Your task to perform on an android device: open app "Cash App" Image 0: 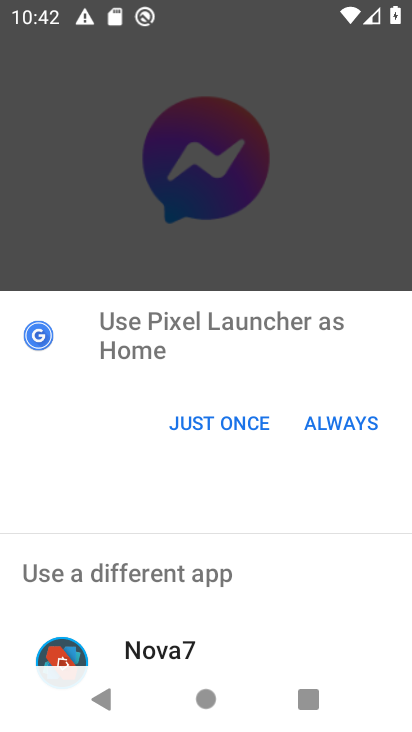
Step 0: press home button
Your task to perform on an android device: open app "Cash App" Image 1: 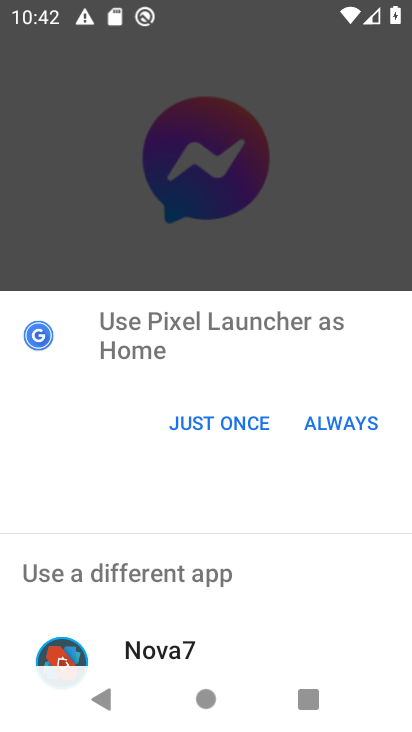
Step 1: click (207, 420)
Your task to perform on an android device: open app "Cash App" Image 2: 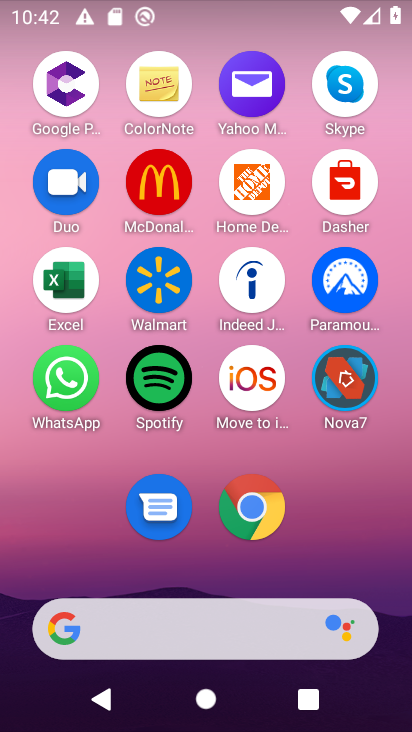
Step 2: drag from (404, 635) to (382, 248)
Your task to perform on an android device: open app "Cash App" Image 3: 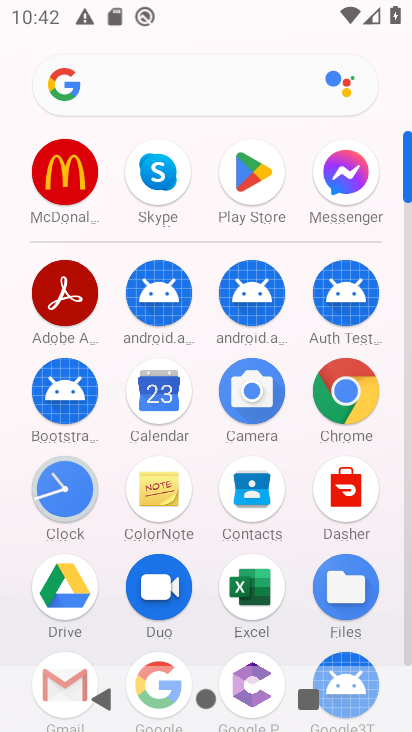
Step 3: click (409, 648)
Your task to perform on an android device: open app "Cash App" Image 4: 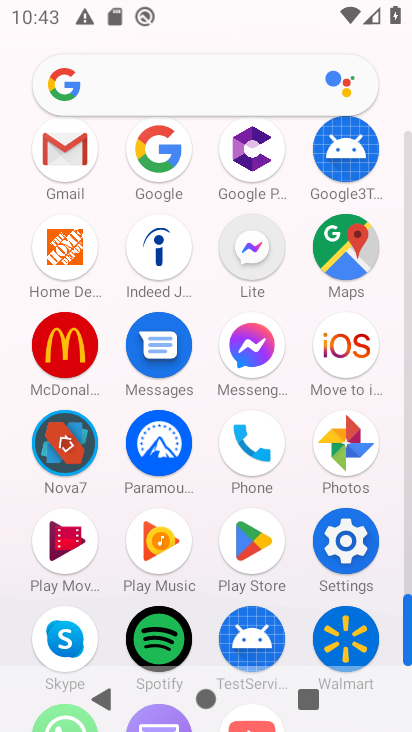
Step 4: click (253, 541)
Your task to perform on an android device: open app "Cash App" Image 5: 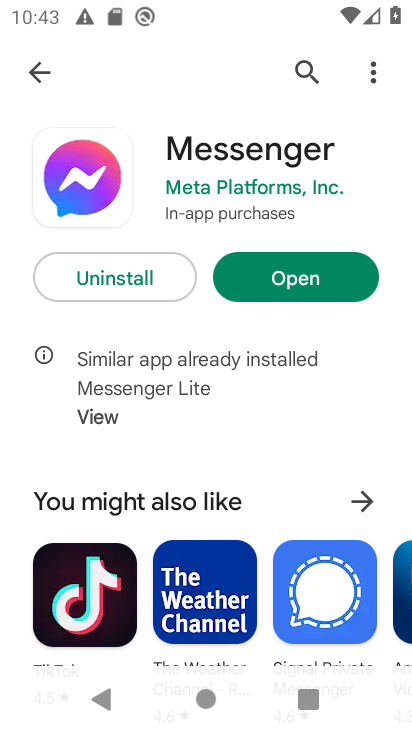
Step 5: click (303, 66)
Your task to perform on an android device: open app "Cash App" Image 6: 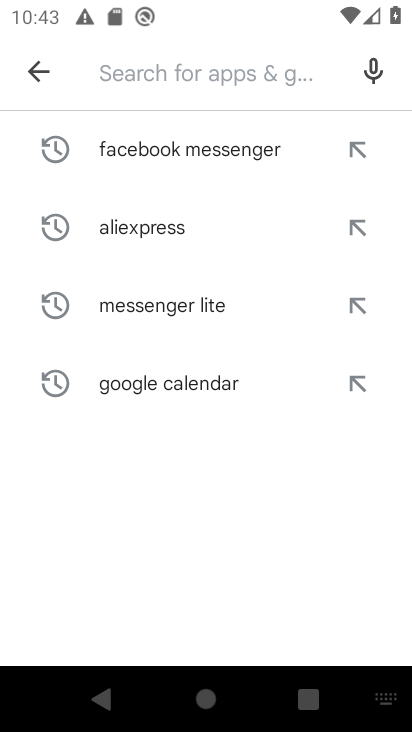
Step 6: type "Cash App"
Your task to perform on an android device: open app "Cash App" Image 7: 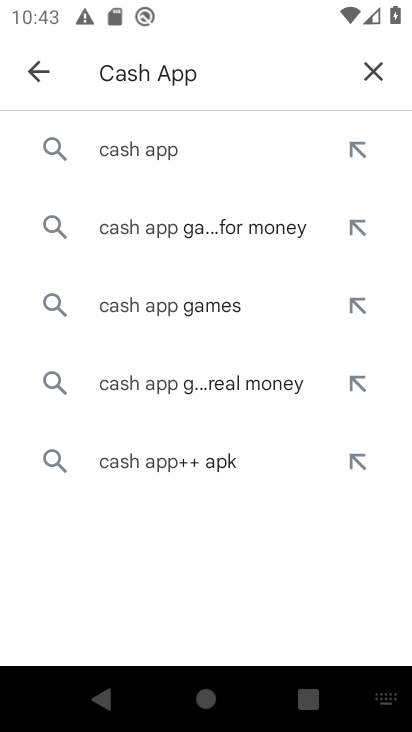
Step 7: click (141, 149)
Your task to perform on an android device: open app "Cash App" Image 8: 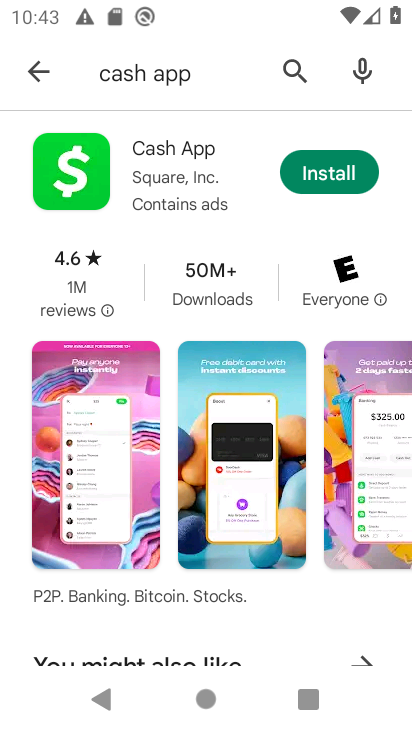
Step 8: task complete